Your task to perform on an android device: toggle priority inbox in the gmail app Image 0: 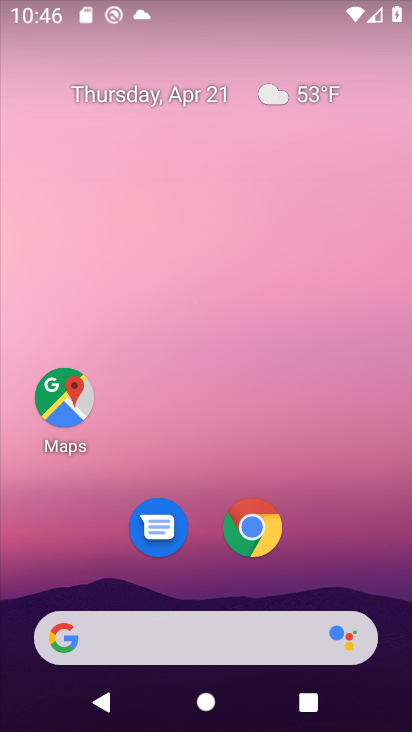
Step 0: drag from (380, 542) to (390, 110)
Your task to perform on an android device: toggle priority inbox in the gmail app Image 1: 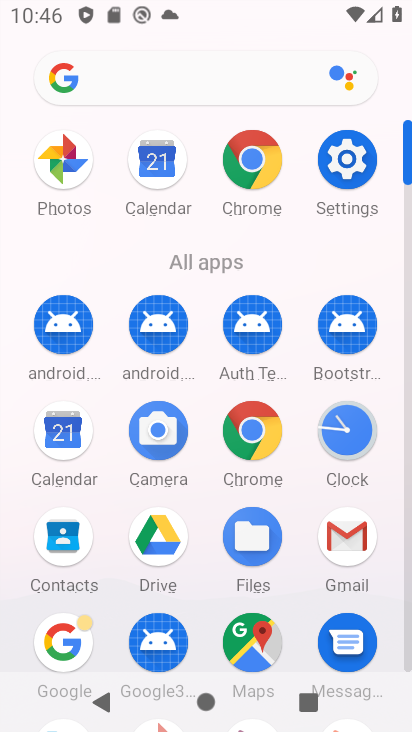
Step 1: click (353, 544)
Your task to perform on an android device: toggle priority inbox in the gmail app Image 2: 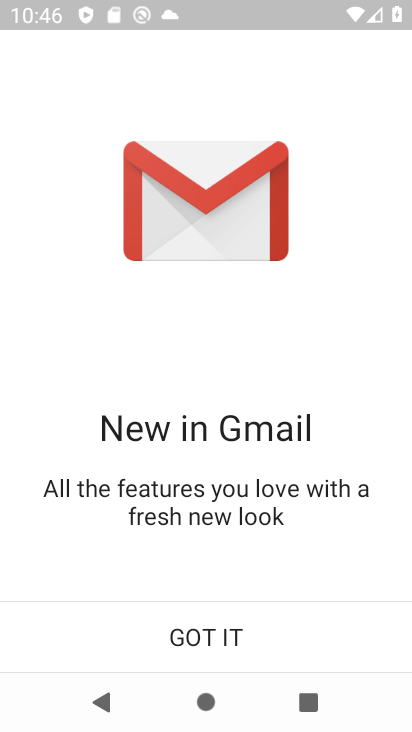
Step 2: click (247, 640)
Your task to perform on an android device: toggle priority inbox in the gmail app Image 3: 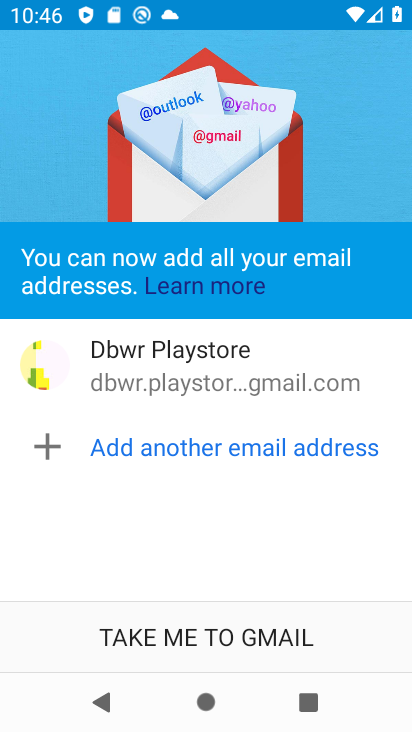
Step 3: click (304, 632)
Your task to perform on an android device: toggle priority inbox in the gmail app Image 4: 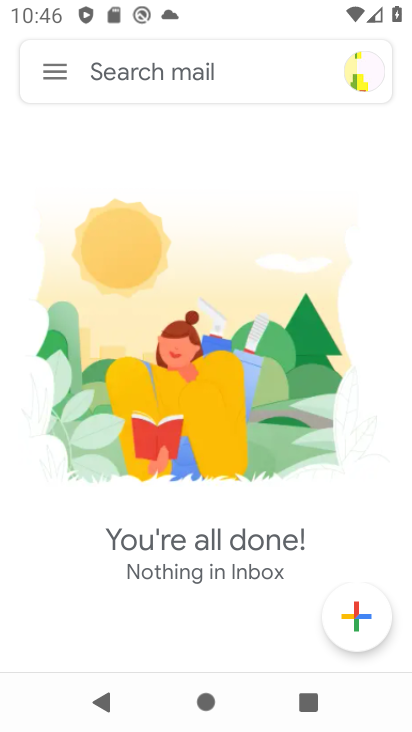
Step 4: click (49, 68)
Your task to perform on an android device: toggle priority inbox in the gmail app Image 5: 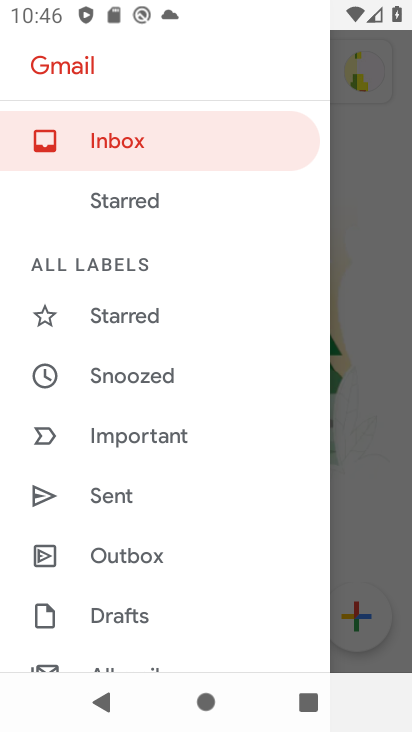
Step 5: drag from (264, 528) to (259, 341)
Your task to perform on an android device: toggle priority inbox in the gmail app Image 6: 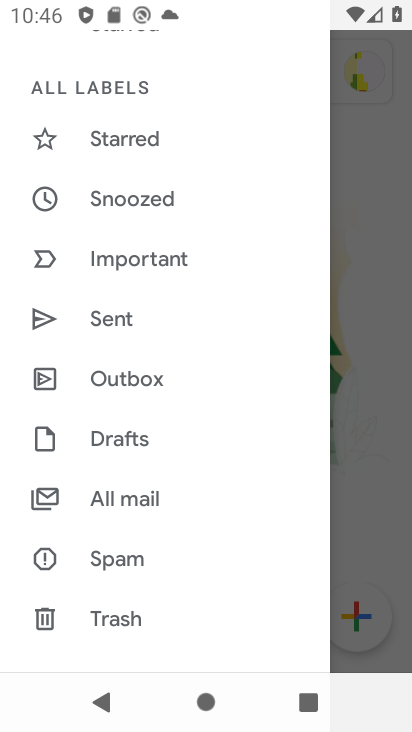
Step 6: drag from (257, 547) to (257, 324)
Your task to perform on an android device: toggle priority inbox in the gmail app Image 7: 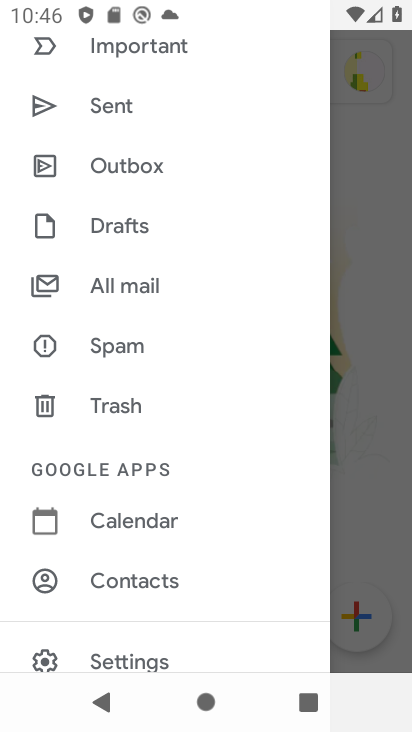
Step 7: drag from (263, 556) to (265, 365)
Your task to perform on an android device: toggle priority inbox in the gmail app Image 8: 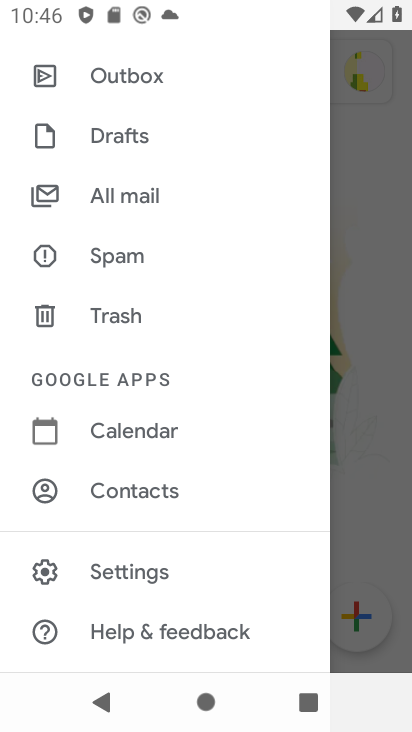
Step 8: click (206, 573)
Your task to perform on an android device: toggle priority inbox in the gmail app Image 9: 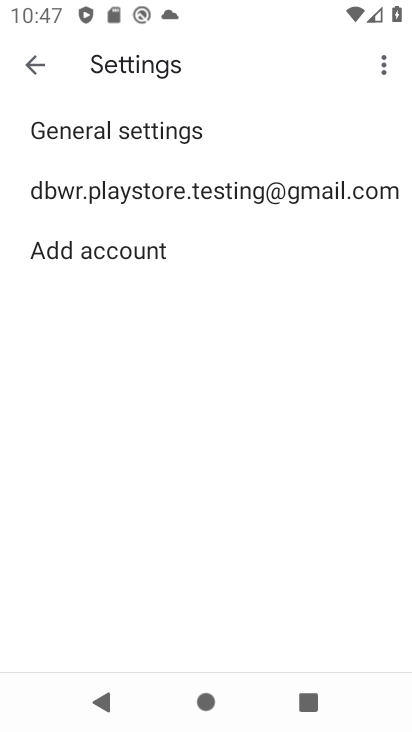
Step 9: click (297, 182)
Your task to perform on an android device: toggle priority inbox in the gmail app Image 10: 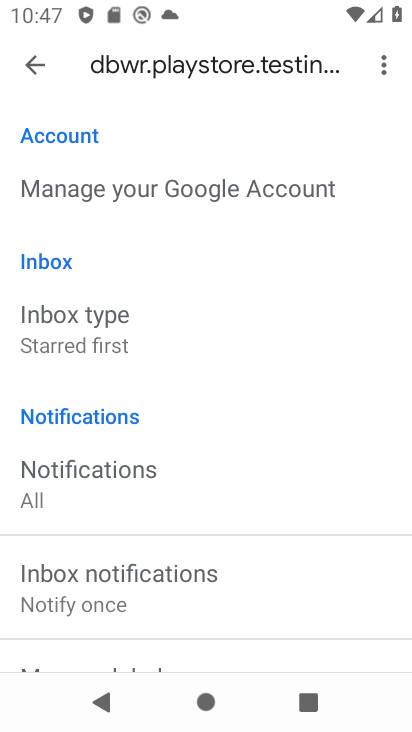
Step 10: drag from (333, 588) to (337, 449)
Your task to perform on an android device: toggle priority inbox in the gmail app Image 11: 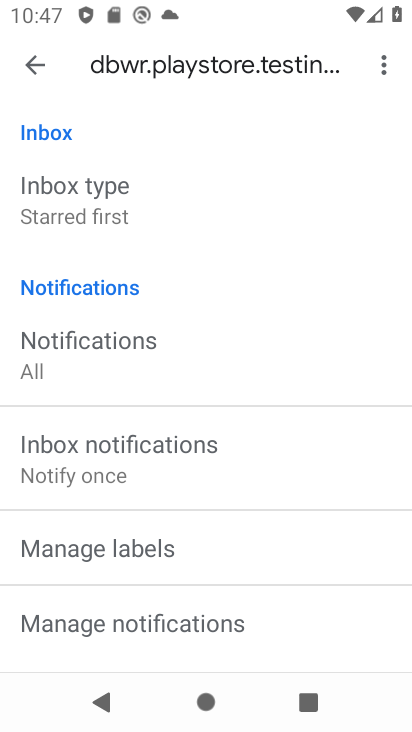
Step 11: drag from (319, 572) to (326, 391)
Your task to perform on an android device: toggle priority inbox in the gmail app Image 12: 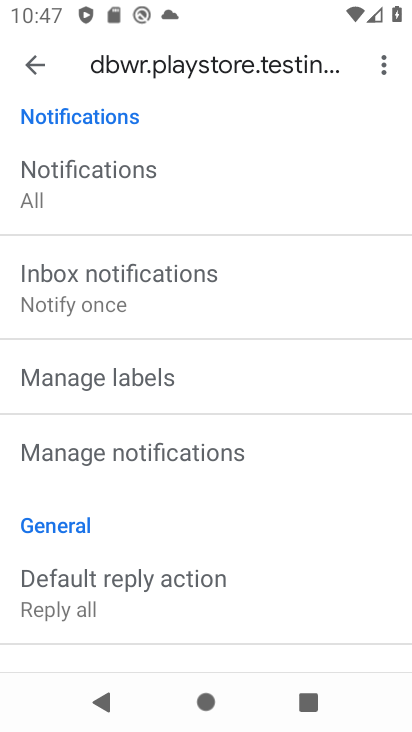
Step 12: drag from (319, 580) to (328, 407)
Your task to perform on an android device: toggle priority inbox in the gmail app Image 13: 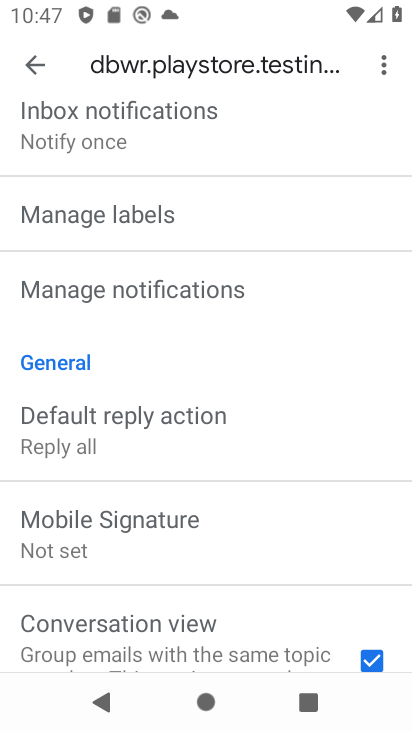
Step 13: drag from (336, 291) to (326, 461)
Your task to perform on an android device: toggle priority inbox in the gmail app Image 14: 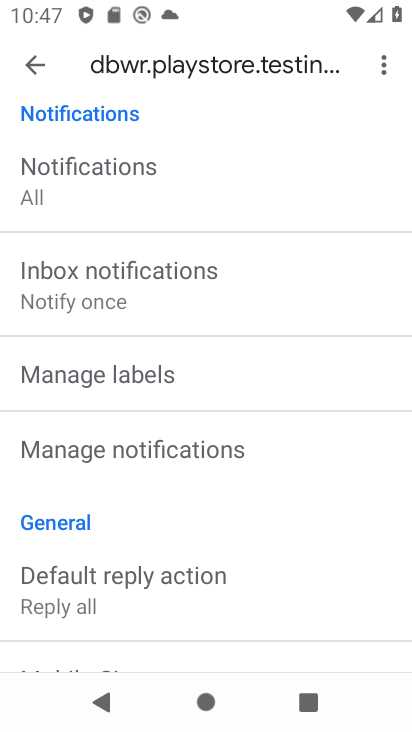
Step 14: drag from (323, 277) to (321, 470)
Your task to perform on an android device: toggle priority inbox in the gmail app Image 15: 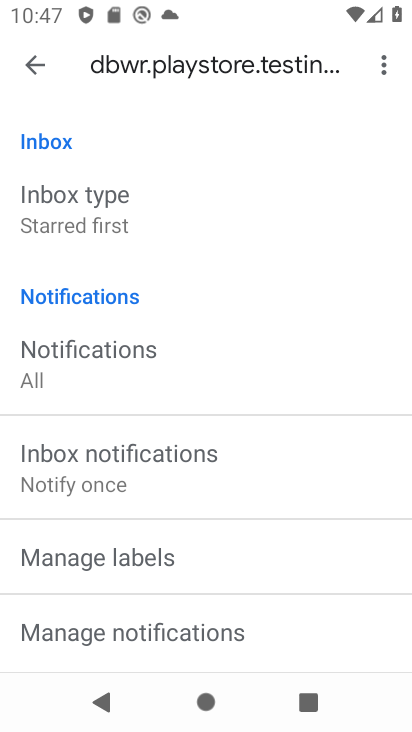
Step 15: drag from (318, 262) to (317, 427)
Your task to perform on an android device: toggle priority inbox in the gmail app Image 16: 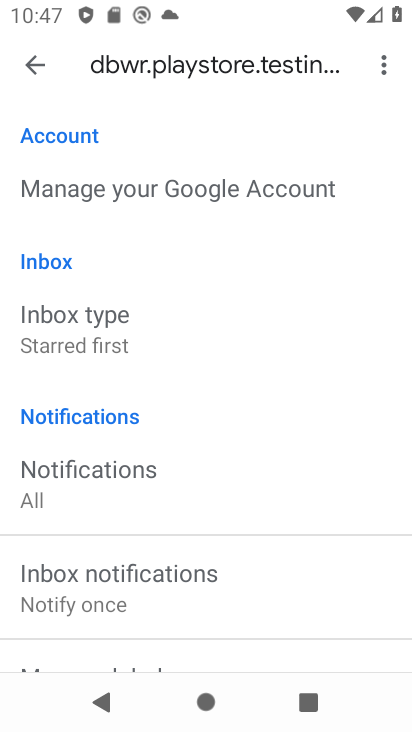
Step 16: click (87, 329)
Your task to perform on an android device: toggle priority inbox in the gmail app Image 17: 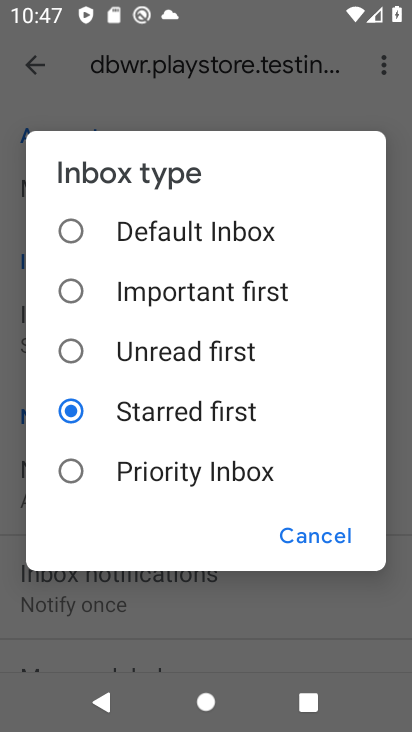
Step 17: click (197, 460)
Your task to perform on an android device: toggle priority inbox in the gmail app Image 18: 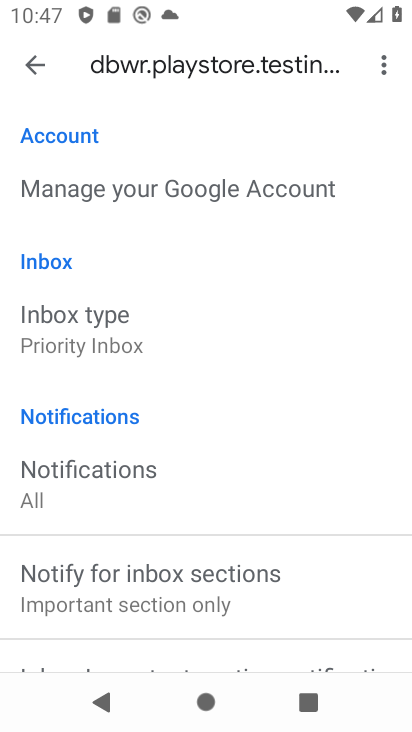
Step 18: task complete